Your task to perform on an android device: turn off airplane mode Image 0: 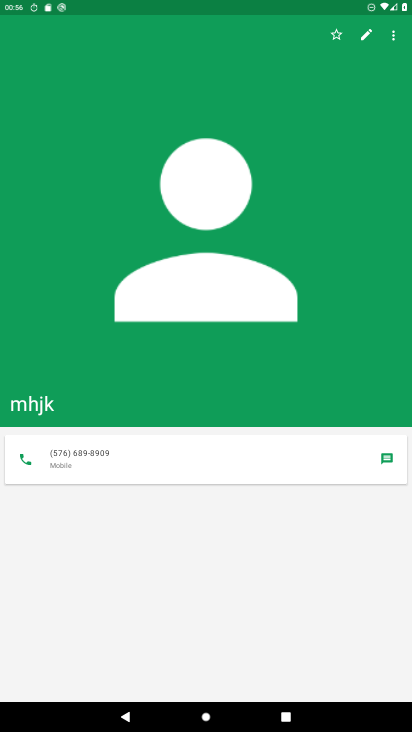
Step 0: press home button
Your task to perform on an android device: turn off airplane mode Image 1: 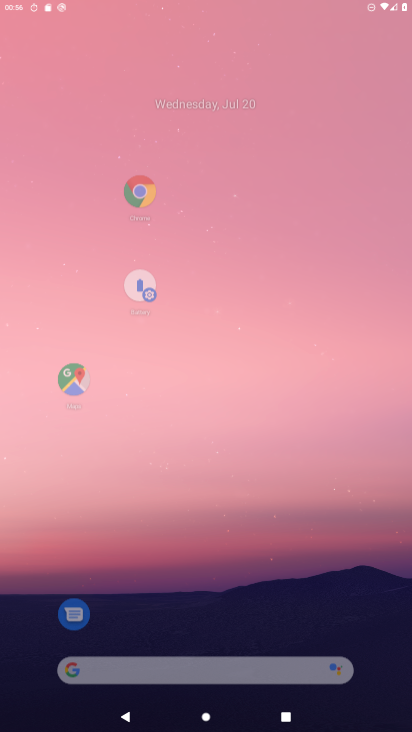
Step 1: drag from (150, 599) to (279, 228)
Your task to perform on an android device: turn off airplane mode Image 2: 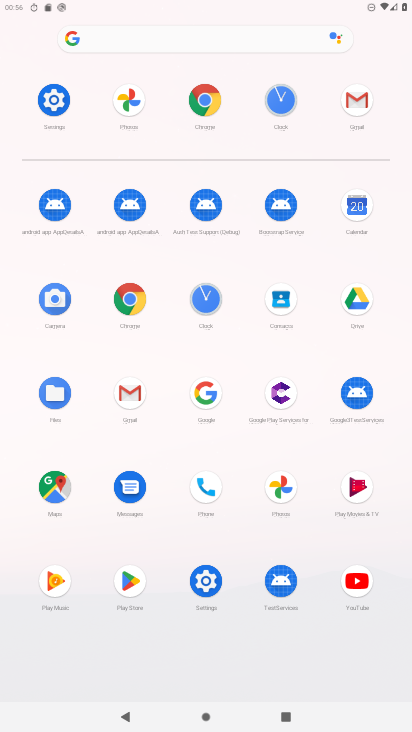
Step 2: click (215, 579)
Your task to perform on an android device: turn off airplane mode Image 3: 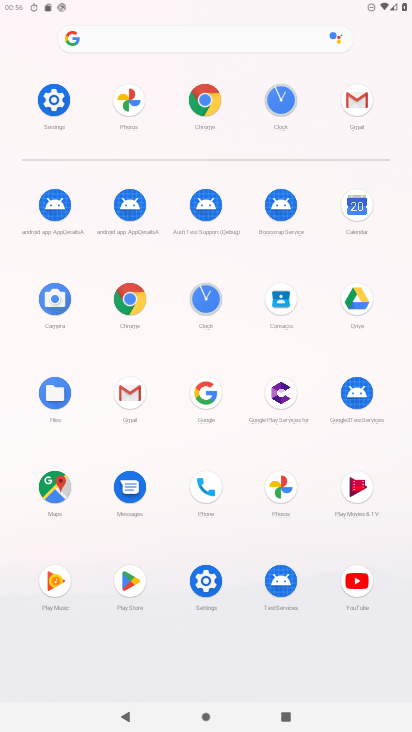
Step 3: click (215, 579)
Your task to perform on an android device: turn off airplane mode Image 4: 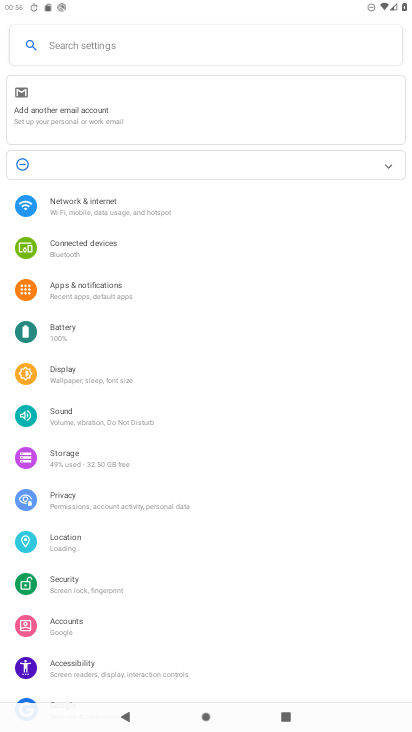
Step 4: click (147, 193)
Your task to perform on an android device: turn off airplane mode Image 5: 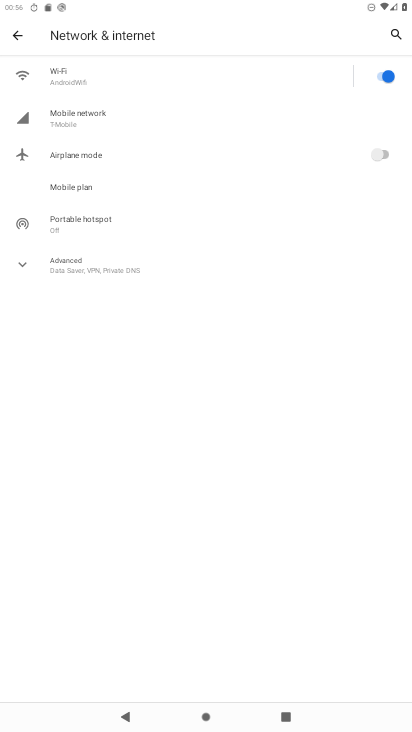
Step 5: task complete